Your task to perform on an android device: What's the weather going to be tomorrow? Image 0: 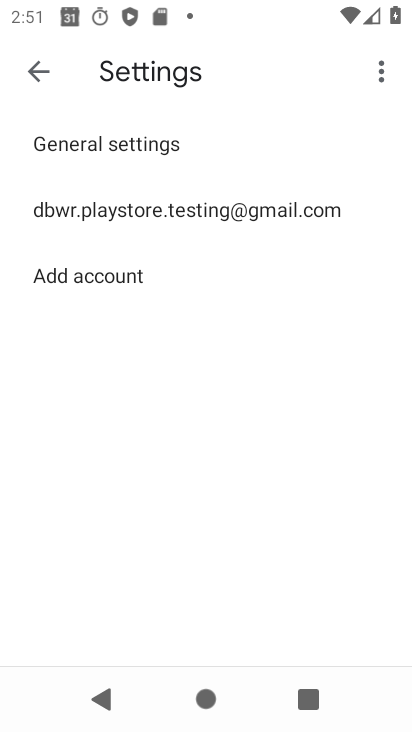
Step 0: press home button
Your task to perform on an android device: What's the weather going to be tomorrow? Image 1: 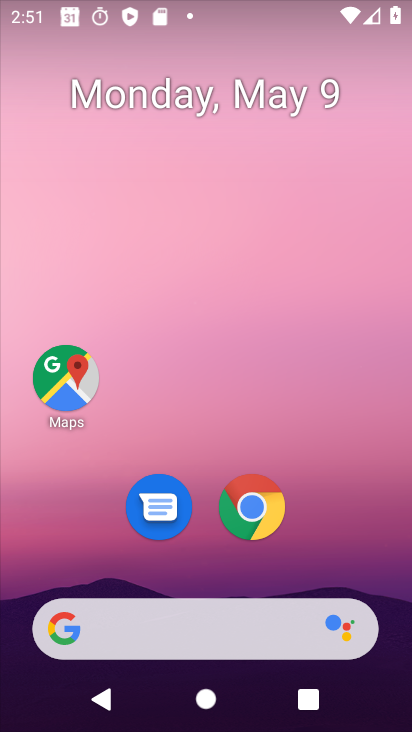
Step 1: drag from (362, 249) to (48, 240)
Your task to perform on an android device: What's the weather going to be tomorrow? Image 2: 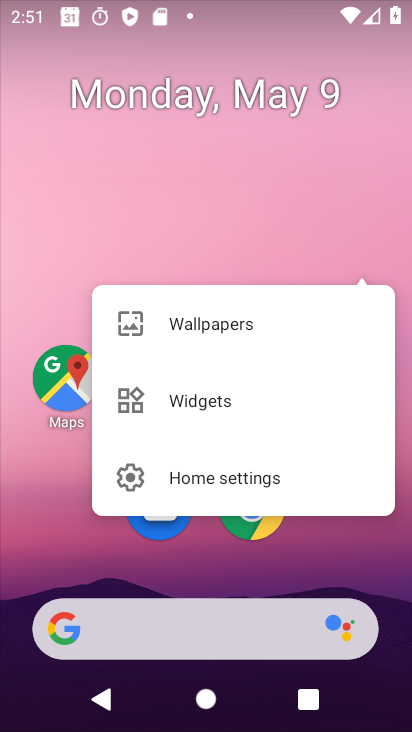
Step 2: click (86, 220)
Your task to perform on an android device: What's the weather going to be tomorrow? Image 3: 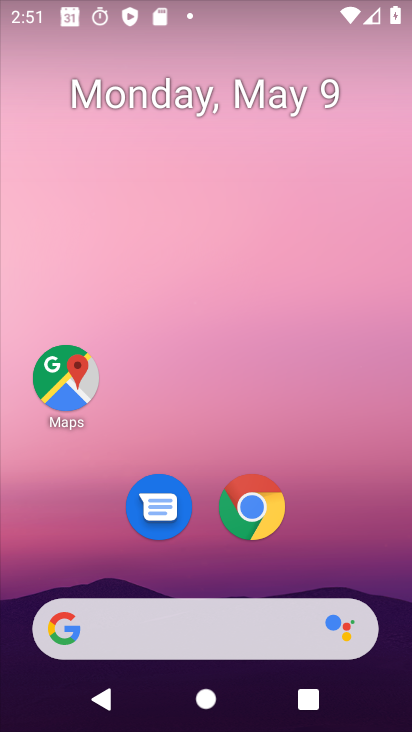
Step 3: drag from (80, 178) to (408, 164)
Your task to perform on an android device: What's the weather going to be tomorrow? Image 4: 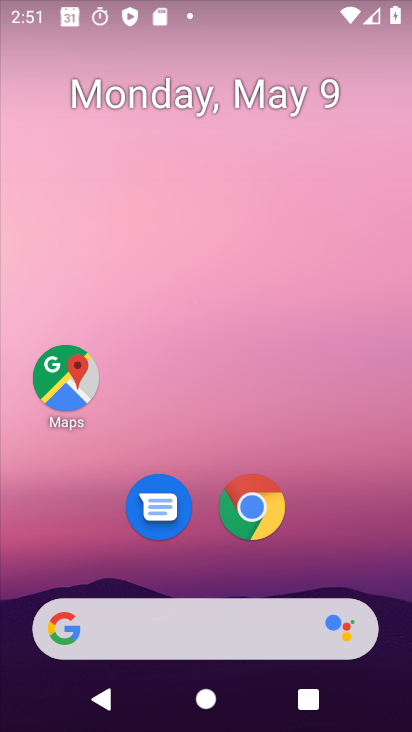
Step 4: drag from (351, 238) to (19, 121)
Your task to perform on an android device: What's the weather going to be tomorrow? Image 5: 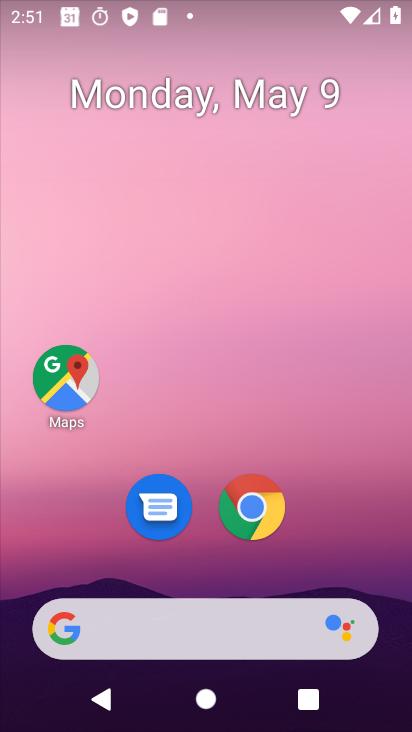
Step 5: drag from (25, 146) to (411, 353)
Your task to perform on an android device: What's the weather going to be tomorrow? Image 6: 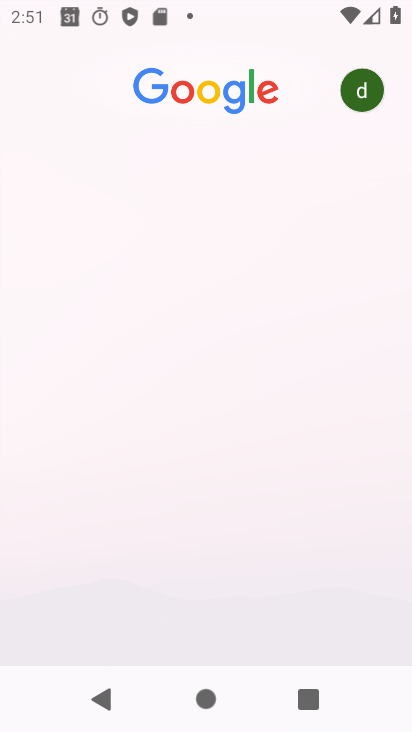
Step 6: press home button
Your task to perform on an android device: What's the weather going to be tomorrow? Image 7: 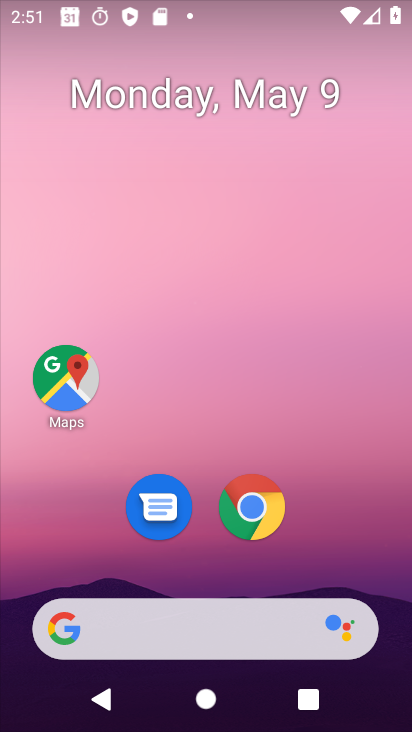
Step 7: click (243, 79)
Your task to perform on an android device: What's the weather going to be tomorrow? Image 8: 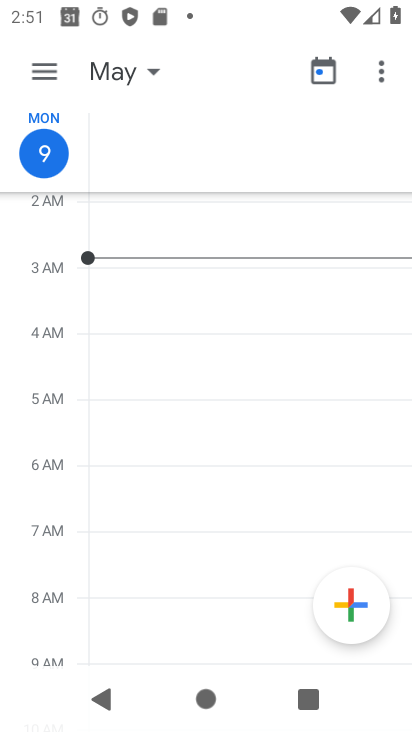
Step 8: click (253, 84)
Your task to perform on an android device: What's the weather going to be tomorrow? Image 9: 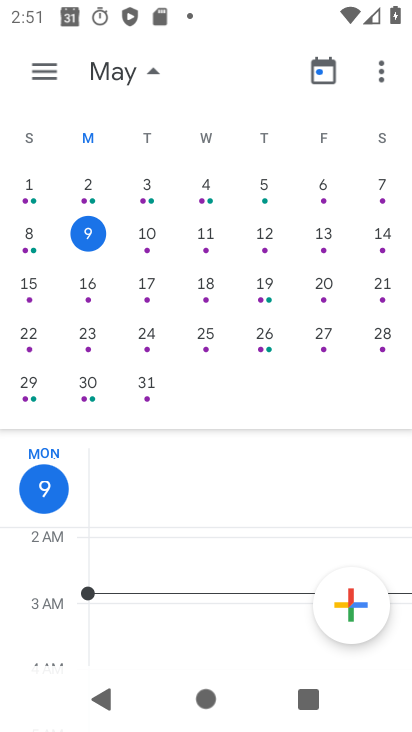
Step 9: press home button
Your task to perform on an android device: What's the weather going to be tomorrow? Image 10: 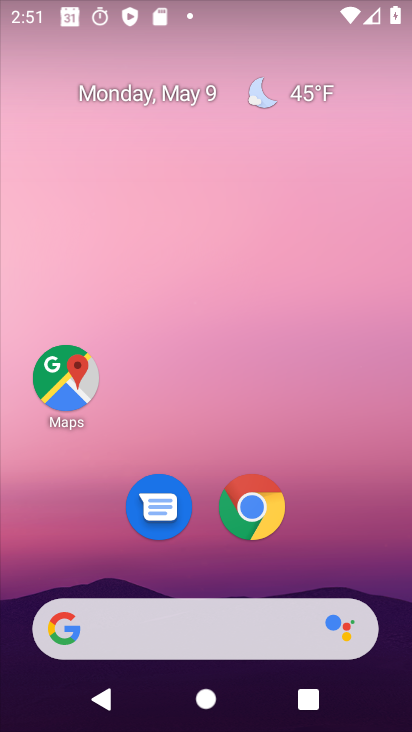
Step 10: click (316, 90)
Your task to perform on an android device: What's the weather going to be tomorrow? Image 11: 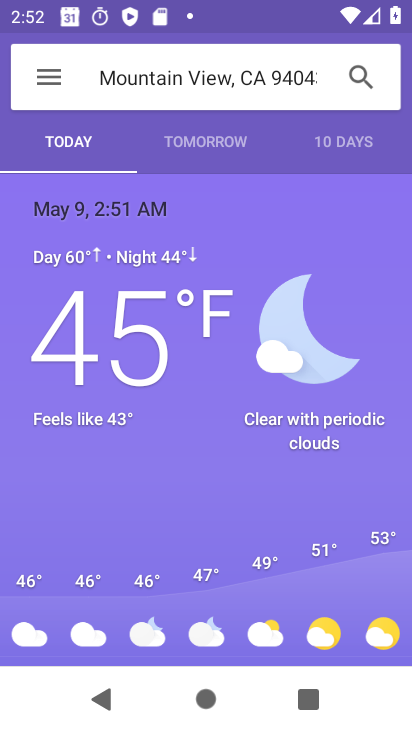
Step 11: click (199, 142)
Your task to perform on an android device: What's the weather going to be tomorrow? Image 12: 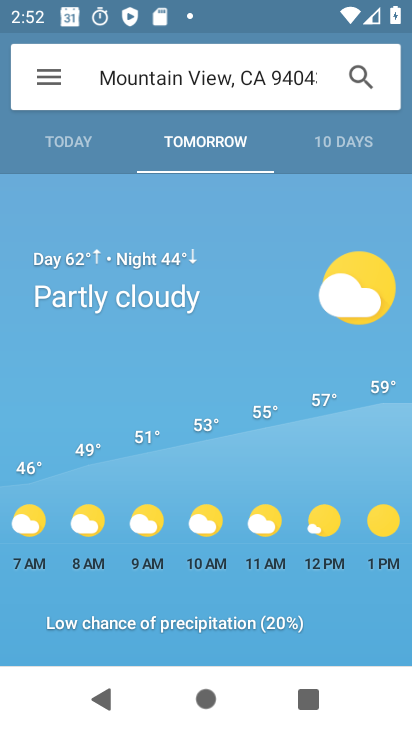
Step 12: task complete